Your task to perform on an android device: Open Yahoo.com Image 0: 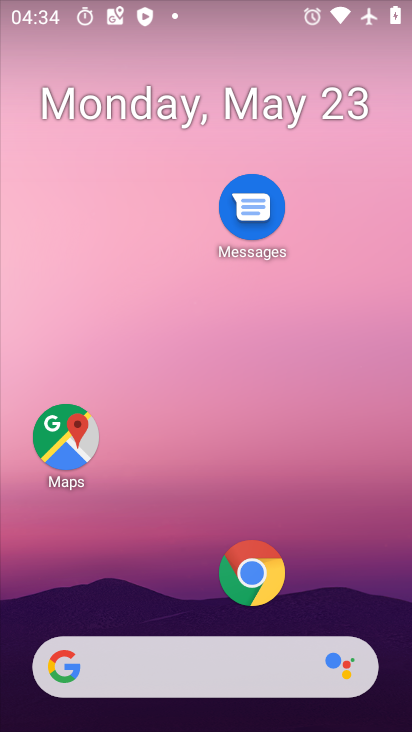
Step 0: drag from (369, 607) to (371, 47)
Your task to perform on an android device: Open Yahoo.com Image 1: 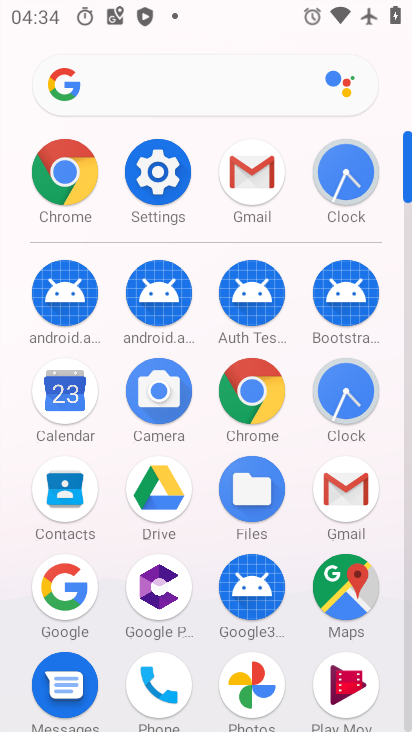
Step 1: click (250, 383)
Your task to perform on an android device: Open Yahoo.com Image 2: 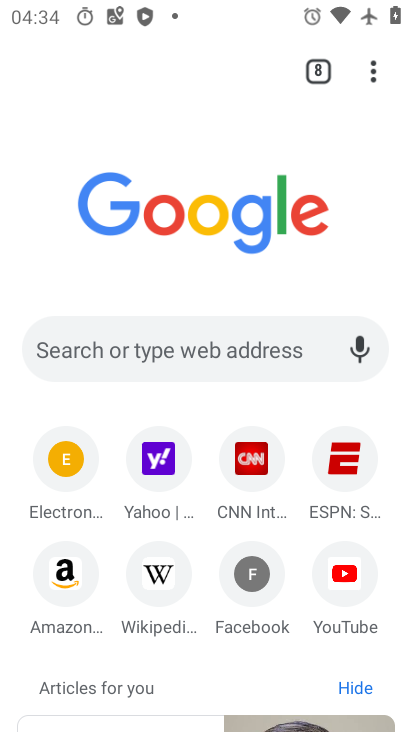
Step 2: click (179, 467)
Your task to perform on an android device: Open Yahoo.com Image 3: 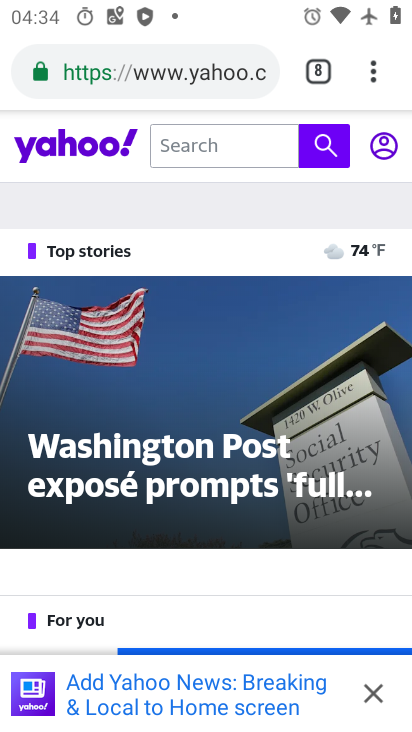
Step 3: task complete